Your task to perform on an android device: Go to display settings Image 0: 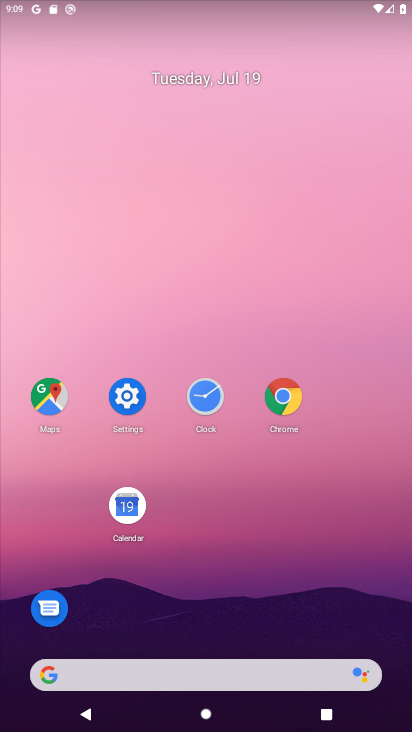
Step 0: click (130, 394)
Your task to perform on an android device: Go to display settings Image 1: 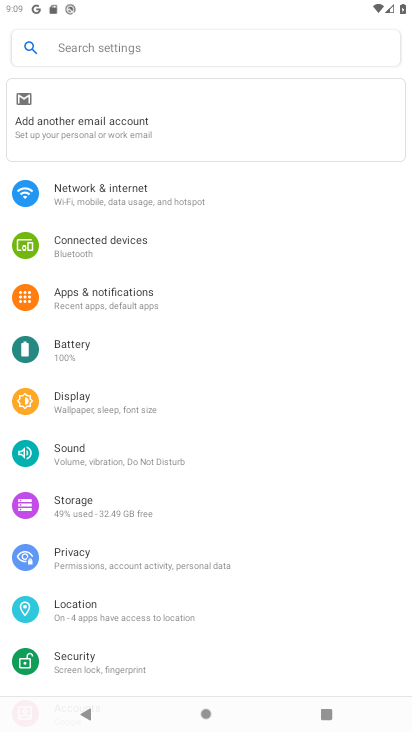
Step 1: click (63, 395)
Your task to perform on an android device: Go to display settings Image 2: 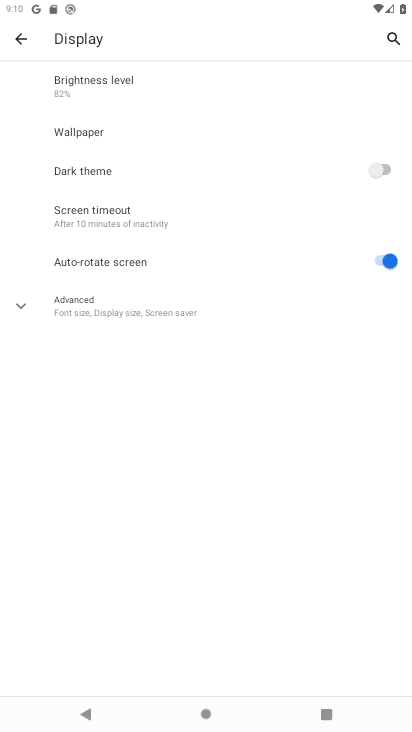
Step 2: click (27, 298)
Your task to perform on an android device: Go to display settings Image 3: 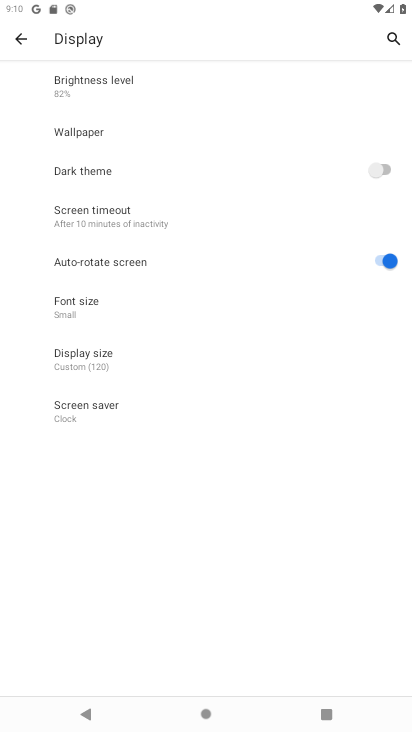
Step 3: task complete